Your task to perform on an android device: What's the weather? Image 0: 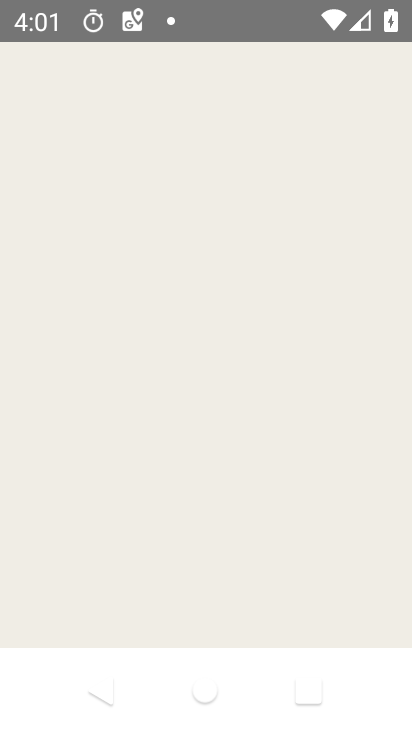
Step 0: press home button
Your task to perform on an android device: What's the weather? Image 1: 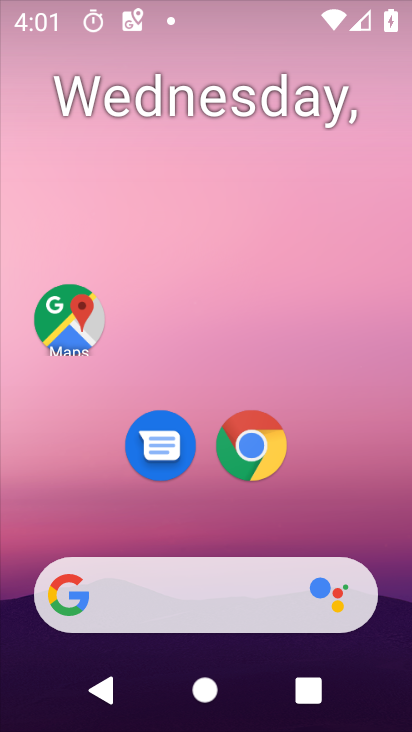
Step 1: drag from (224, 539) to (208, 117)
Your task to perform on an android device: What's the weather? Image 2: 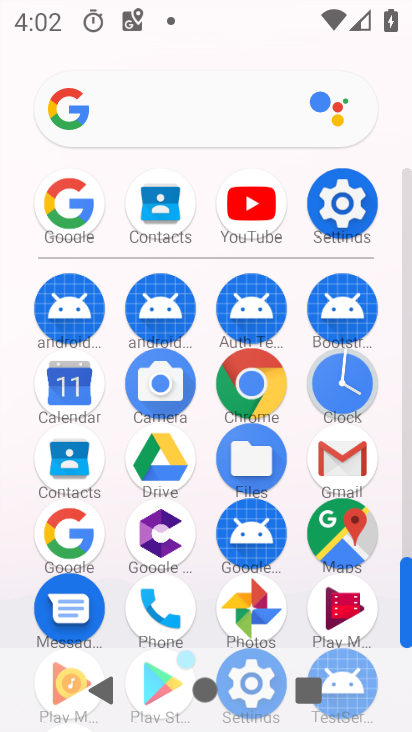
Step 2: click (59, 534)
Your task to perform on an android device: What's the weather? Image 3: 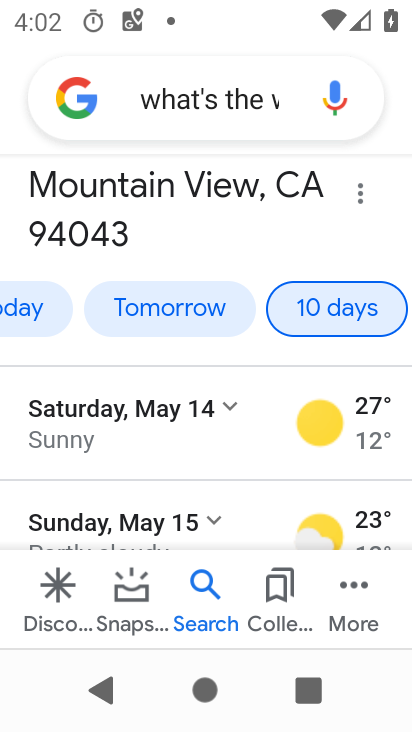
Step 3: click (219, 103)
Your task to perform on an android device: What's the weather? Image 4: 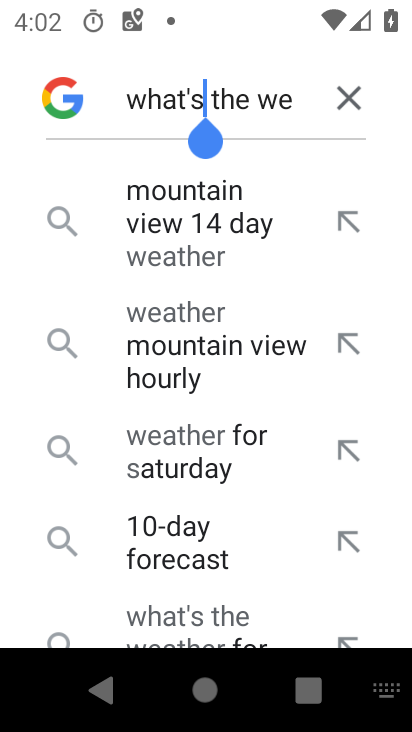
Step 4: click (332, 91)
Your task to perform on an android device: What's the weather? Image 5: 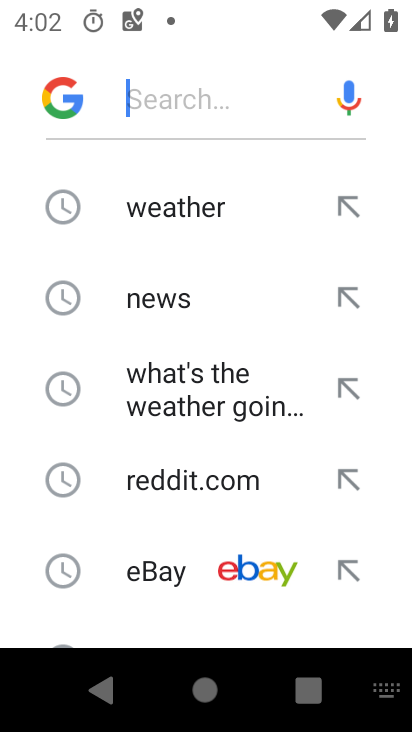
Step 5: click (180, 183)
Your task to perform on an android device: What's the weather? Image 6: 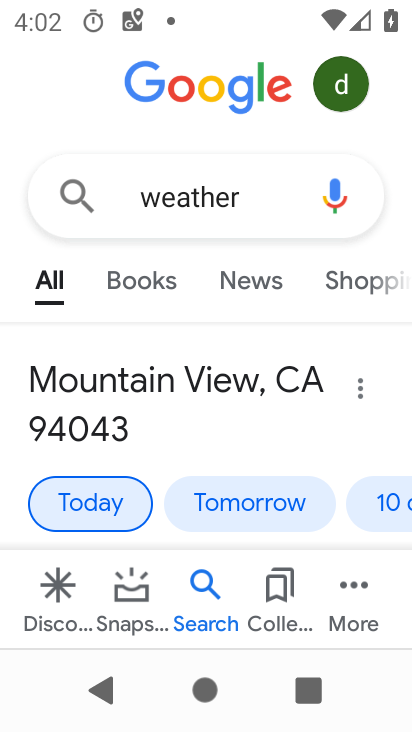
Step 6: task complete